Your task to perform on an android device: Open the Play Movies app and select the watchlist tab. Image 0: 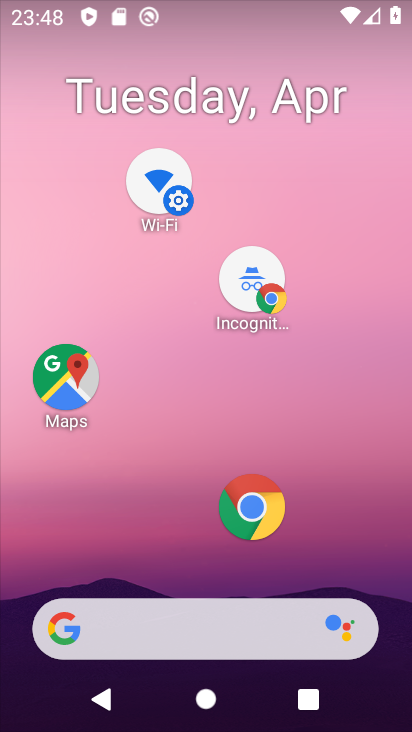
Step 0: drag from (74, 624) to (329, 344)
Your task to perform on an android device: Open the Play Movies app and select the watchlist tab. Image 1: 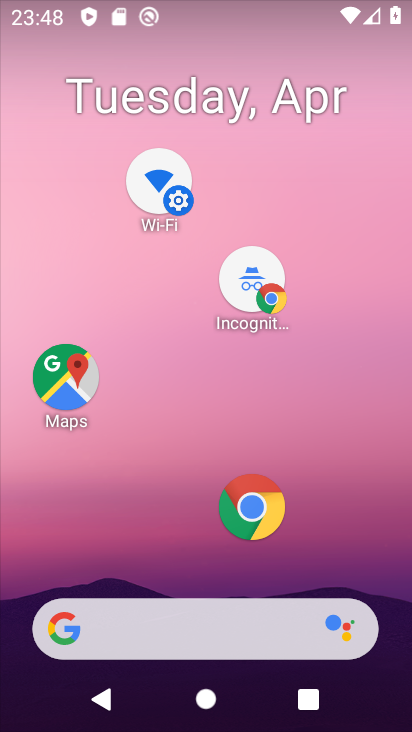
Step 1: drag from (65, 529) to (223, 278)
Your task to perform on an android device: Open the Play Movies app and select the watchlist tab. Image 2: 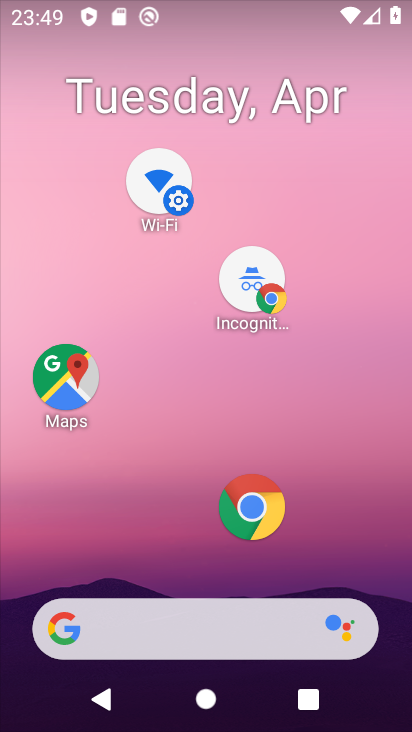
Step 2: drag from (61, 570) to (198, 298)
Your task to perform on an android device: Open the Play Movies app and select the watchlist tab. Image 3: 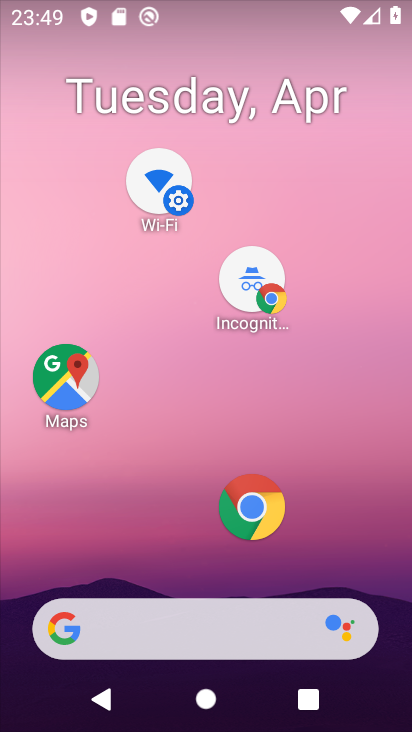
Step 3: drag from (10, 606) to (130, 294)
Your task to perform on an android device: Open the Play Movies app and select the watchlist tab. Image 4: 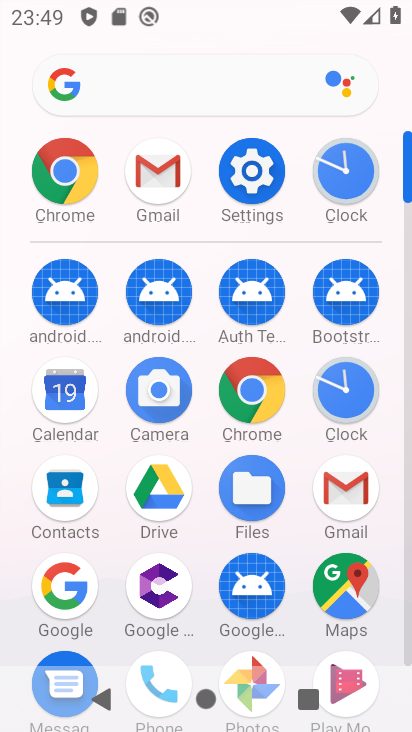
Step 4: drag from (66, 592) to (178, 306)
Your task to perform on an android device: Open the Play Movies app and select the watchlist tab. Image 5: 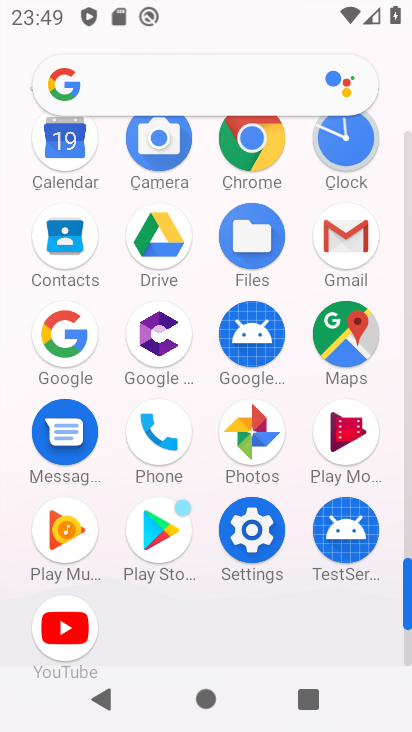
Step 5: click (355, 451)
Your task to perform on an android device: Open the Play Movies app and select the watchlist tab. Image 6: 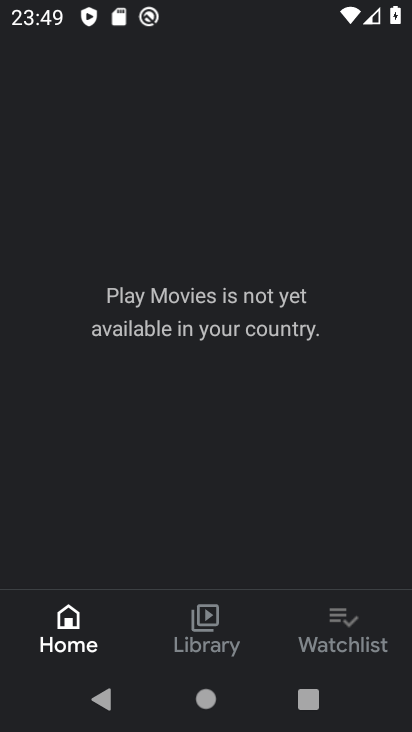
Step 6: click (340, 611)
Your task to perform on an android device: Open the Play Movies app and select the watchlist tab. Image 7: 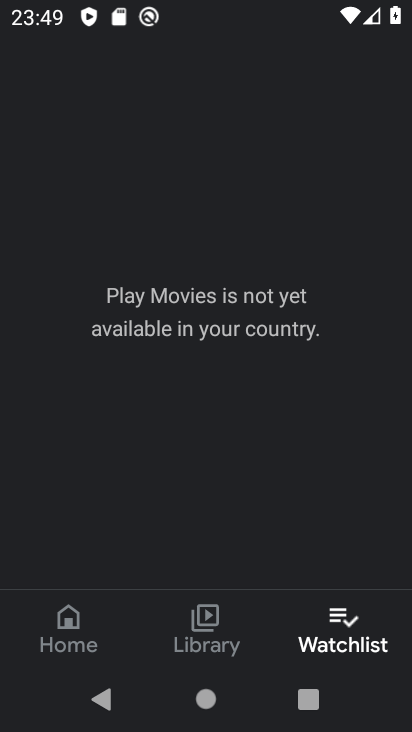
Step 7: task complete